Your task to perform on an android device: remove spam from my inbox in the gmail app Image 0: 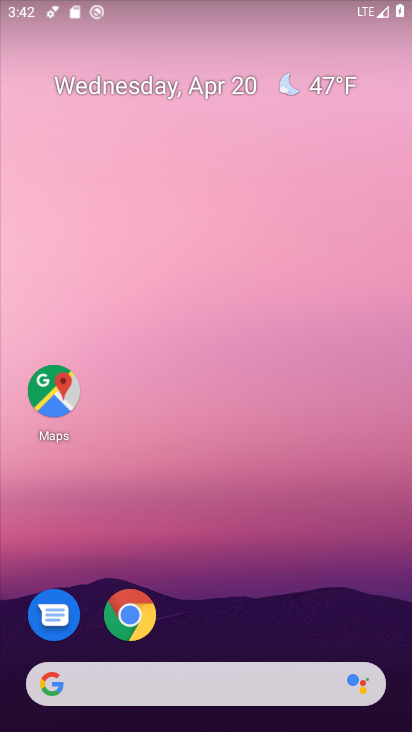
Step 0: drag from (227, 626) to (219, 141)
Your task to perform on an android device: remove spam from my inbox in the gmail app Image 1: 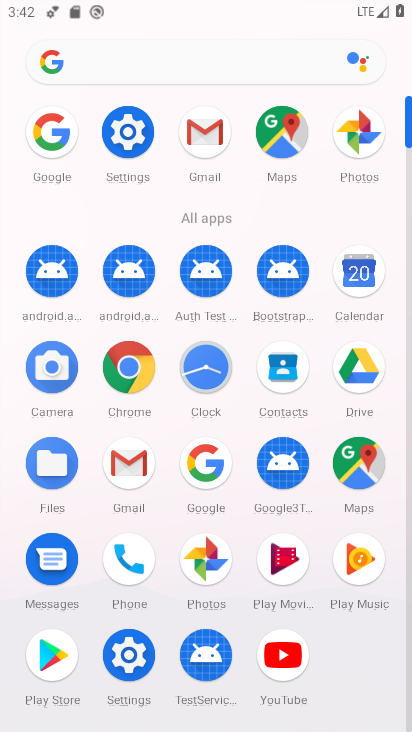
Step 1: click (216, 143)
Your task to perform on an android device: remove spam from my inbox in the gmail app Image 2: 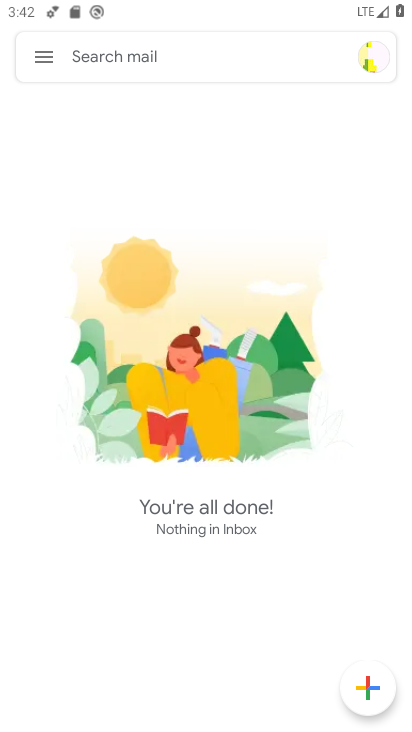
Step 2: click (39, 58)
Your task to perform on an android device: remove spam from my inbox in the gmail app Image 3: 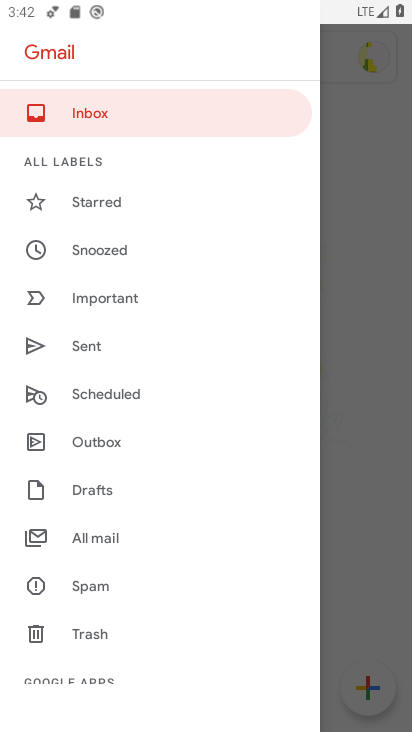
Step 3: click (123, 582)
Your task to perform on an android device: remove spam from my inbox in the gmail app Image 4: 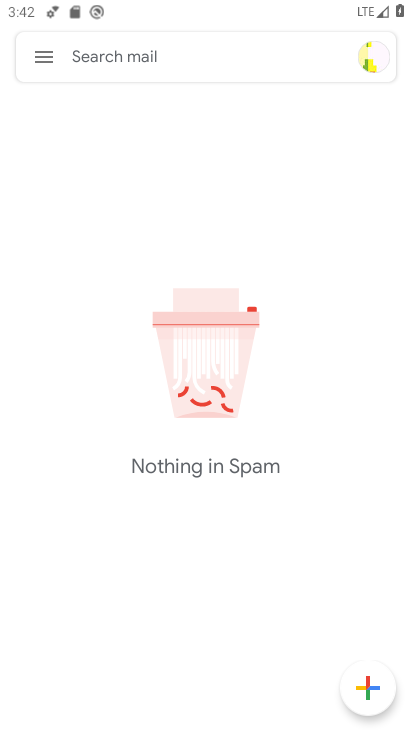
Step 4: task complete